Your task to perform on an android device: Go to notification settings Image 0: 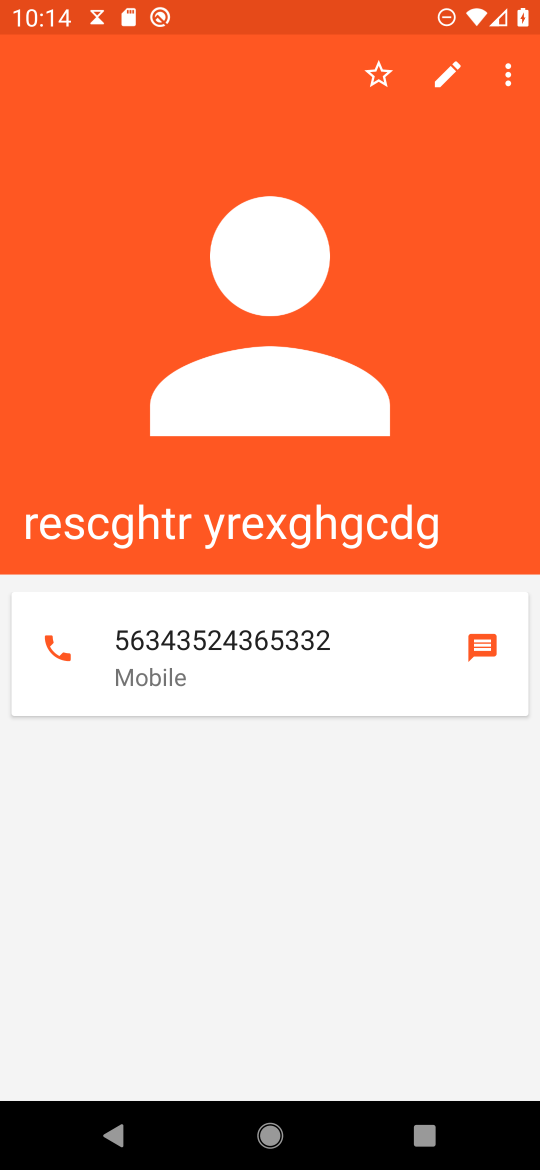
Step 0: press home button
Your task to perform on an android device: Go to notification settings Image 1: 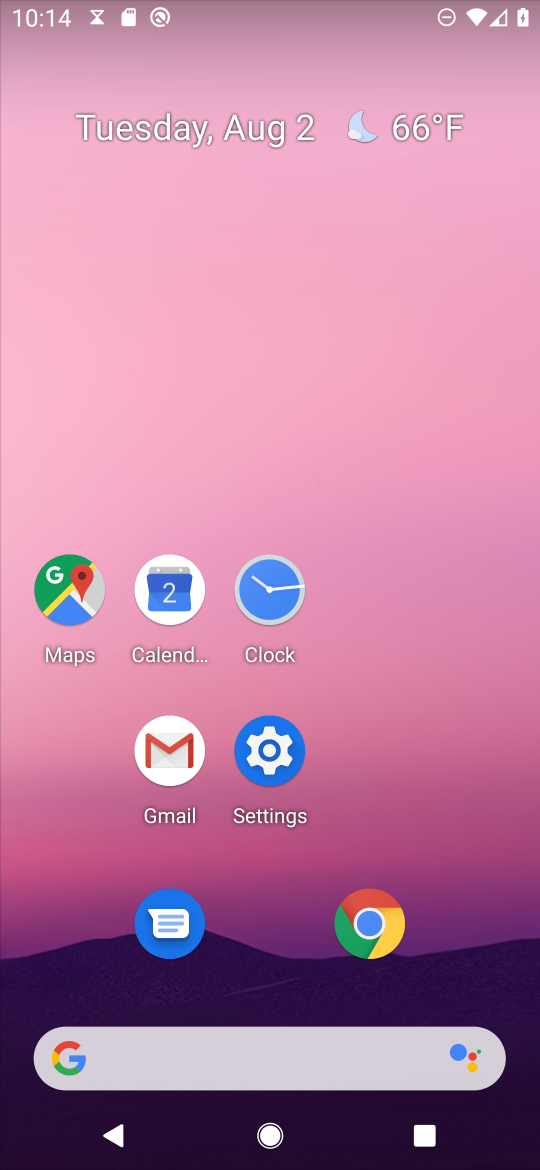
Step 1: click (262, 757)
Your task to perform on an android device: Go to notification settings Image 2: 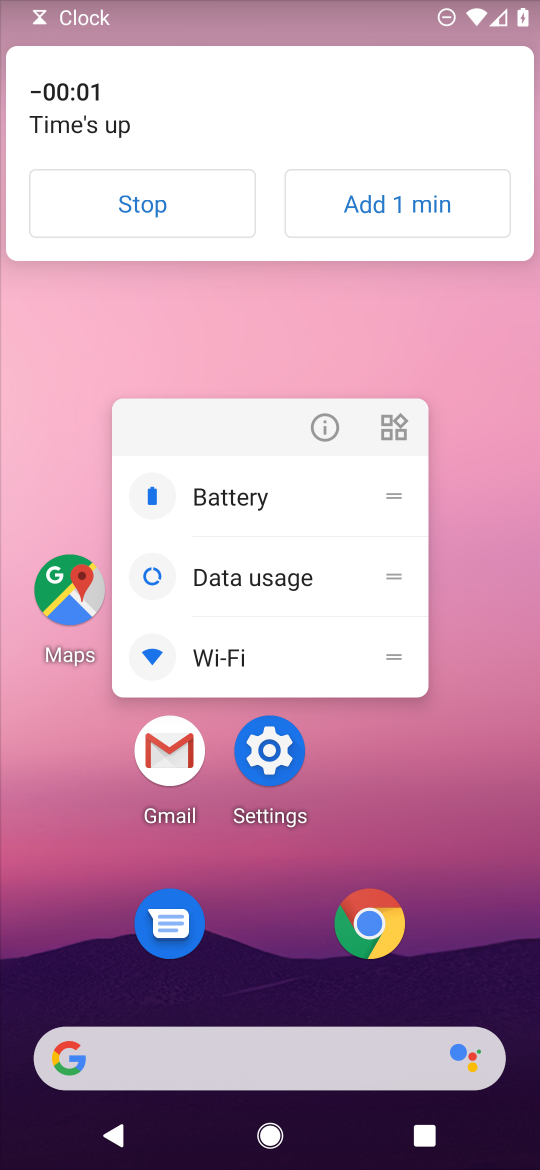
Step 2: click (274, 759)
Your task to perform on an android device: Go to notification settings Image 3: 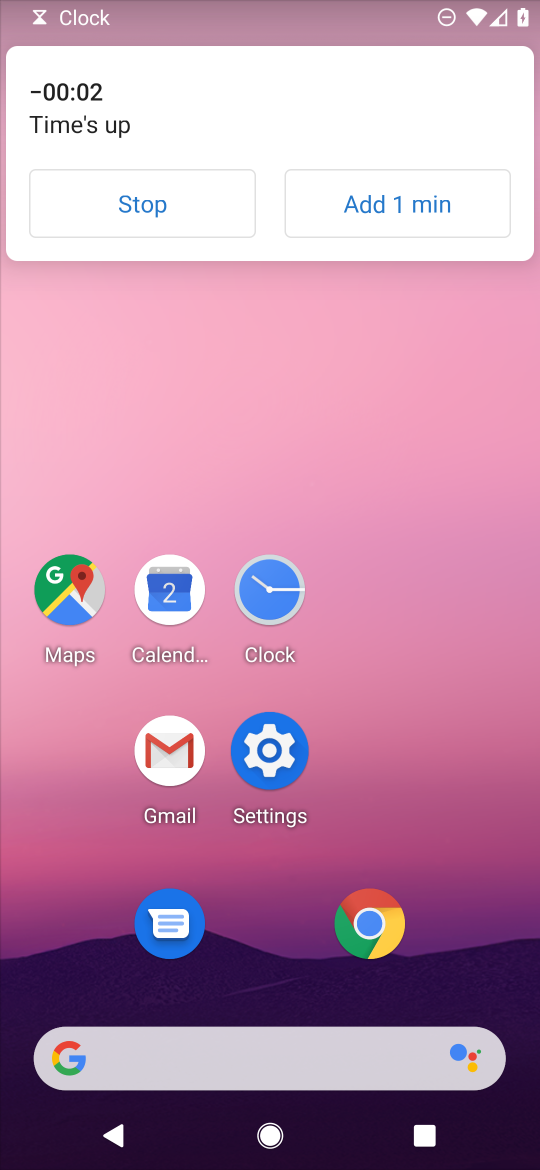
Step 3: click (180, 199)
Your task to perform on an android device: Go to notification settings Image 4: 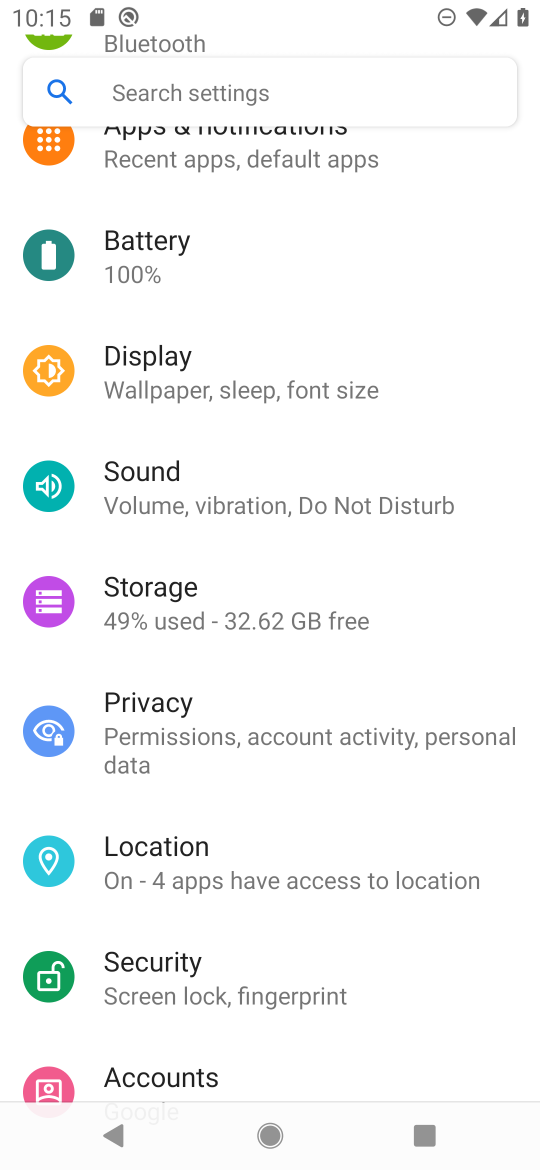
Step 4: click (282, 145)
Your task to perform on an android device: Go to notification settings Image 5: 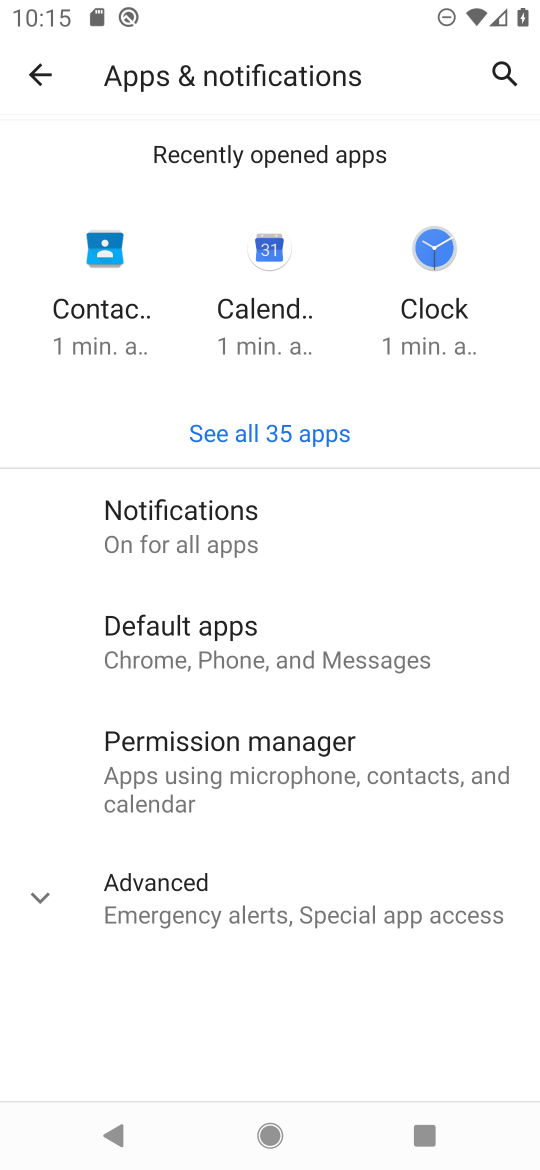
Step 5: click (171, 521)
Your task to perform on an android device: Go to notification settings Image 6: 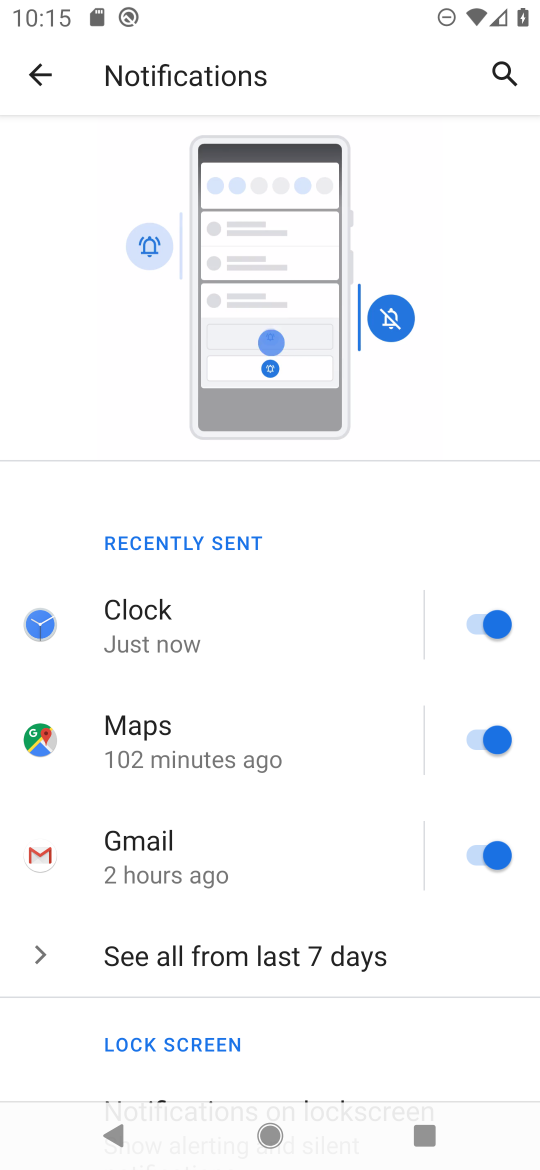
Step 6: drag from (284, 984) to (275, 388)
Your task to perform on an android device: Go to notification settings Image 7: 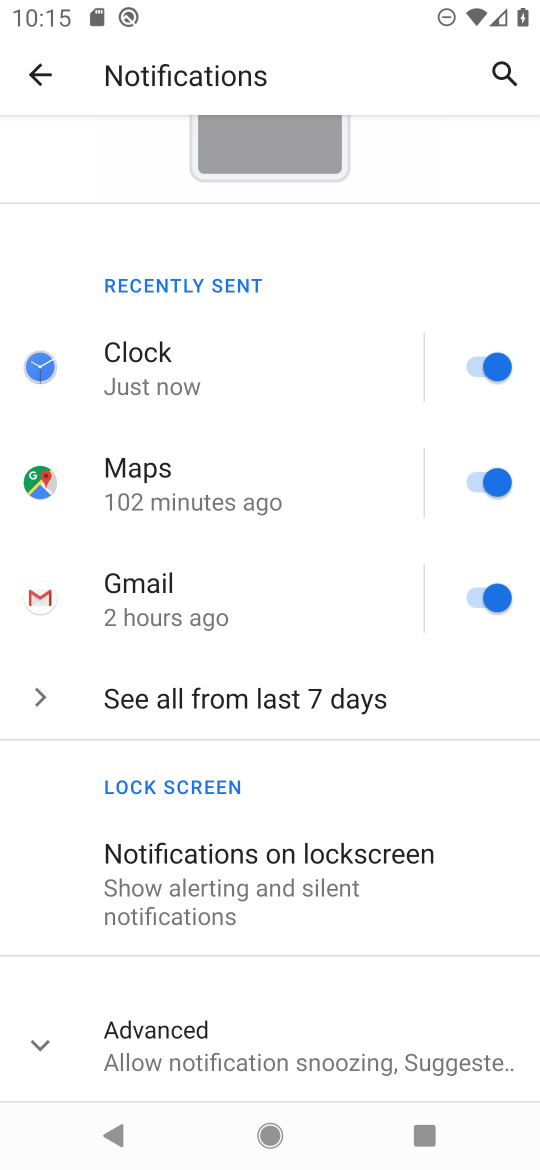
Step 7: click (31, 1044)
Your task to perform on an android device: Go to notification settings Image 8: 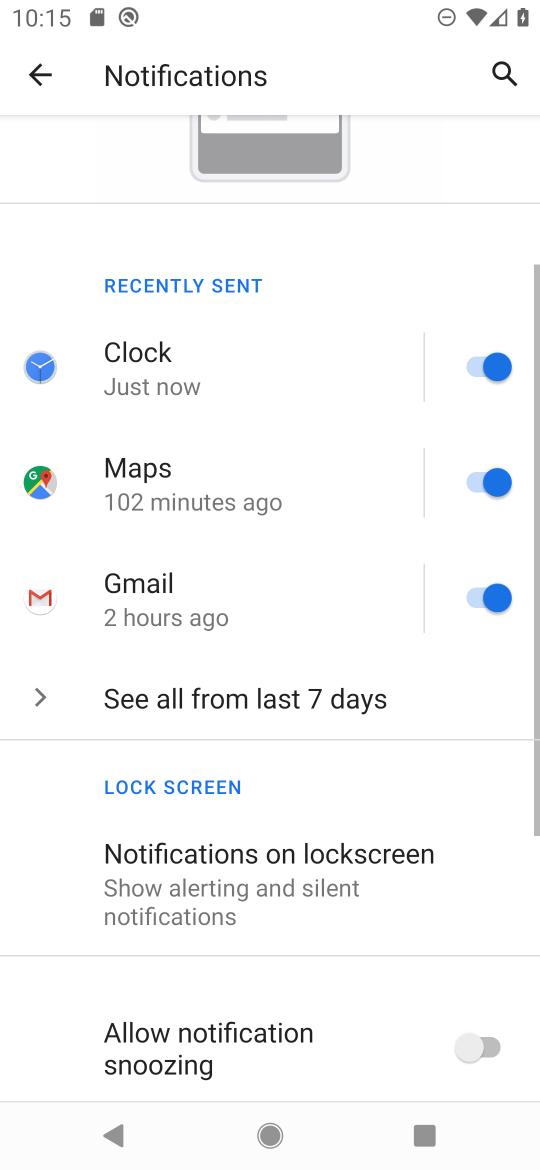
Step 8: task complete